Your task to perform on an android device: Go to settings Image 0: 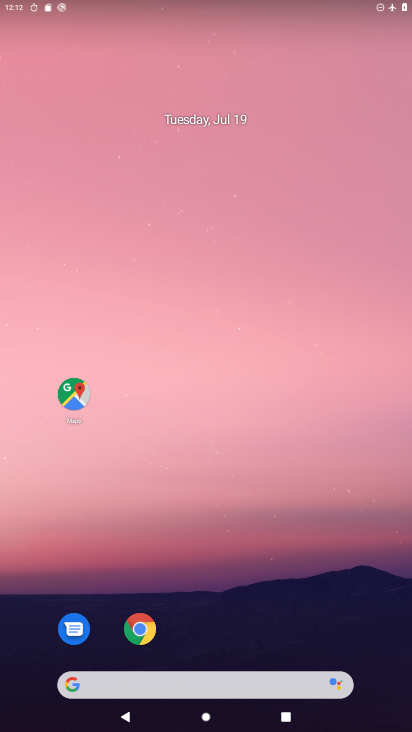
Step 0: drag from (294, 634) to (186, 88)
Your task to perform on an android device: Go to settings Image 1: 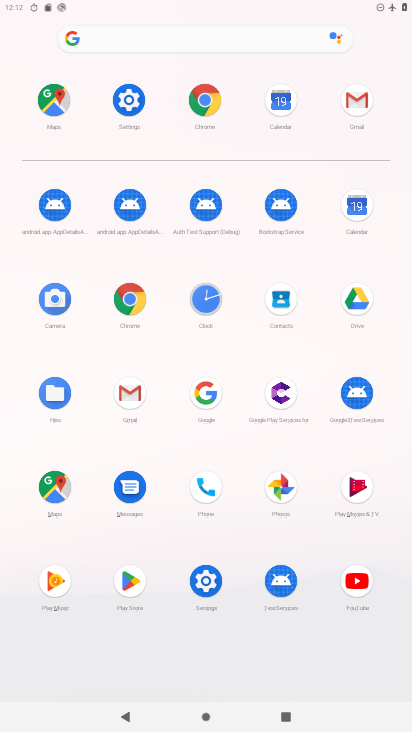
Step 1: click (130, 98)
Your task to perform on an android device: Go to settings Image 2: 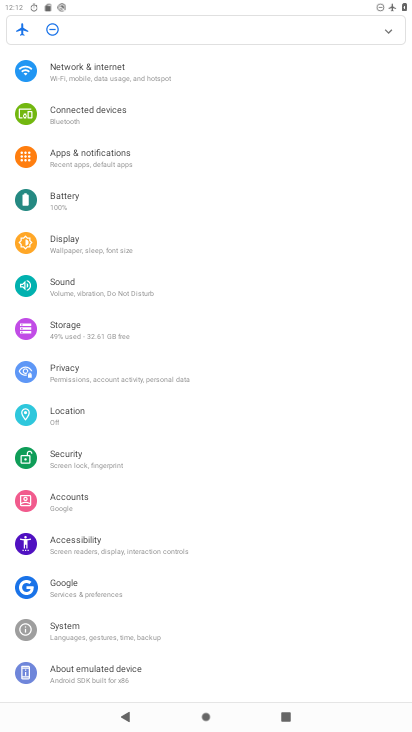
Step 2: task complete